Your task to perform on an android device: turn off airplane mode Image 0: 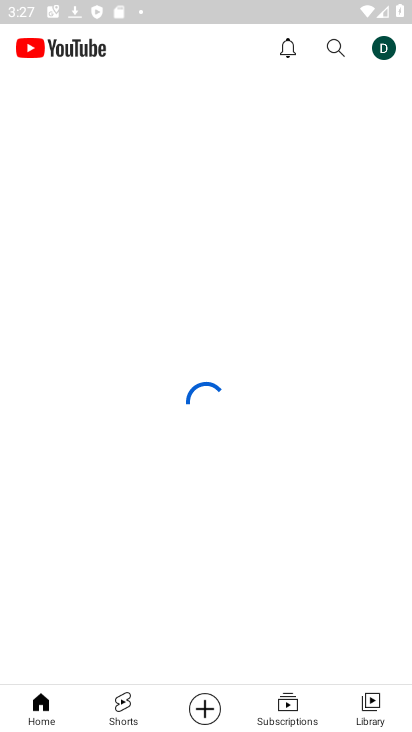
Step 0: press home button
Your task to perform on an android device: turn off airplane mode Image 1: 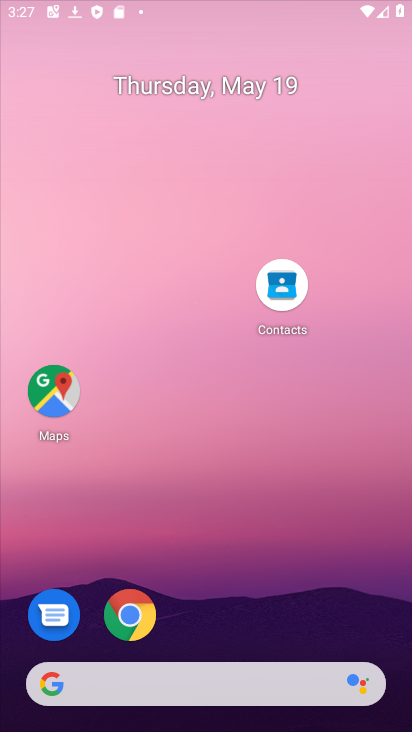
Step 1: drag from (224, 702) to (258, 244)
Your task to perform on an android device: turn off airplane mode Image 2: 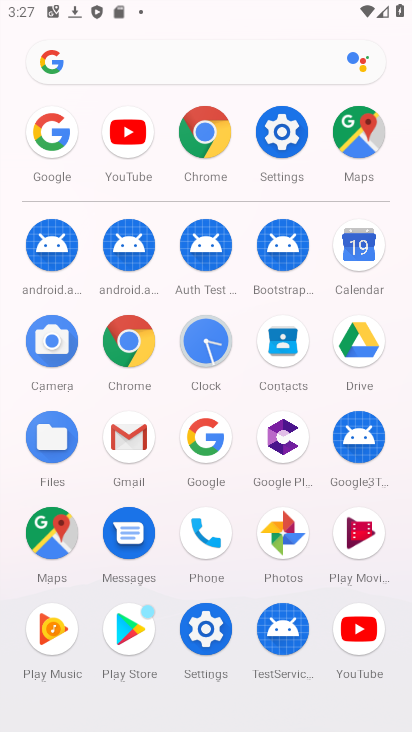
Step 2: click (283, 151)
Your task to perform on an android device: turn off airplane mode Image 3: 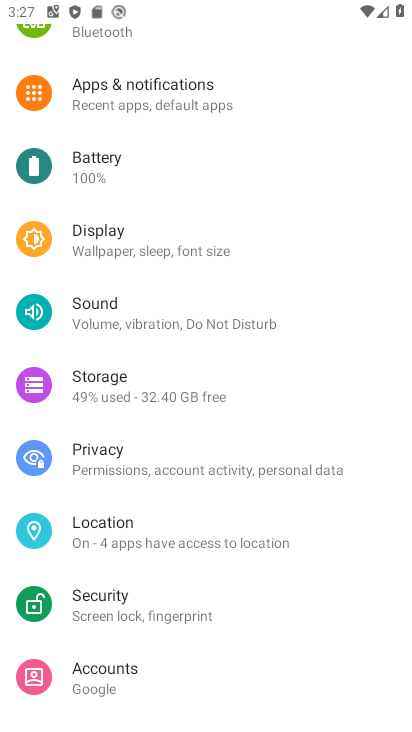
Step 3: drag from (250, 229) to (212, 615)
Your task to perform on an android device: turn off airplane mode Image 4: 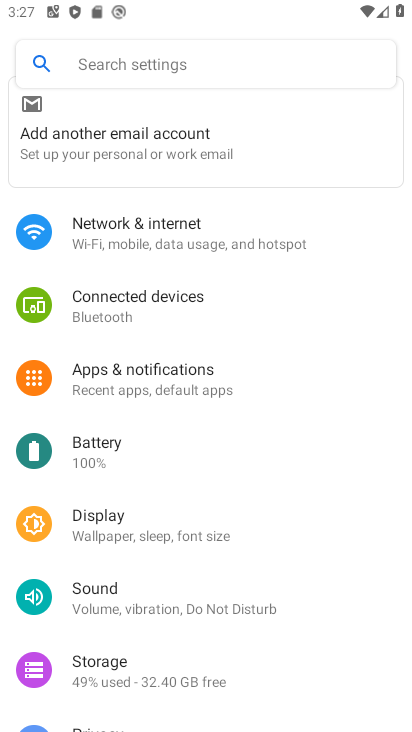
Step 4: click (275, 238)
Your task to perform on an android device: turn off airplane mode Image 5: 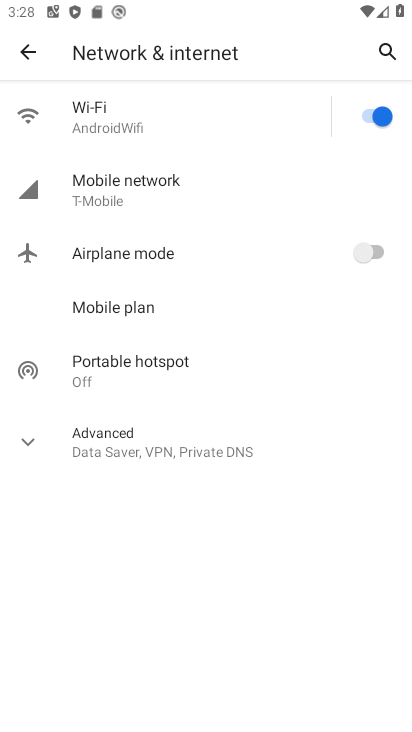
Step 5: task complete